Your task to perform on an android device: delete location history Image 0: 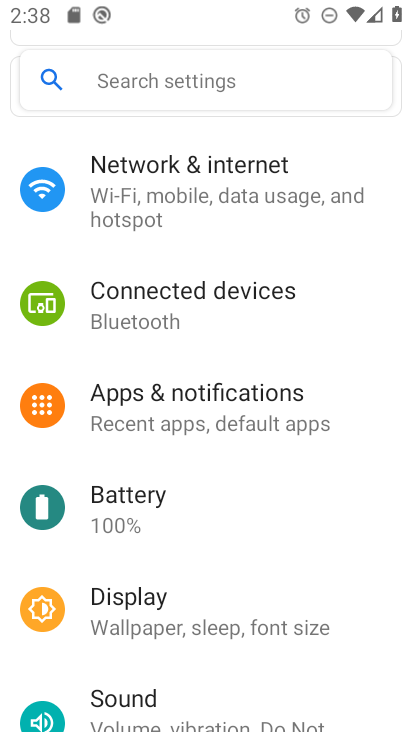
Step 0: drag from (181, 647) to (333, 148)
Your task to perform on an android device: delete location history Image 1: 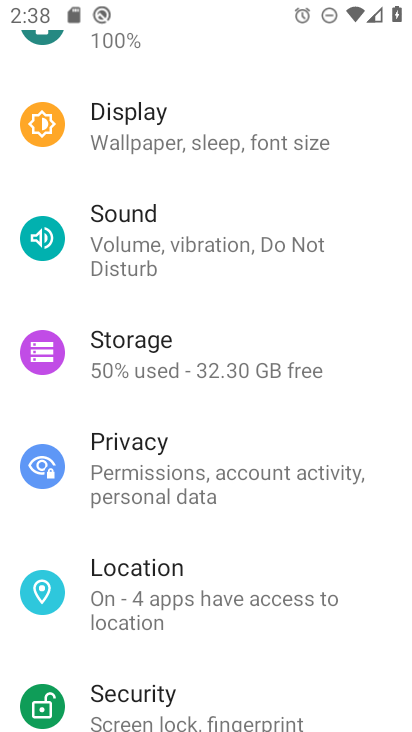
Step 1: drag from (213, 611) to (294, 203)
Your task to perform on an android device: delete location history Image 2: 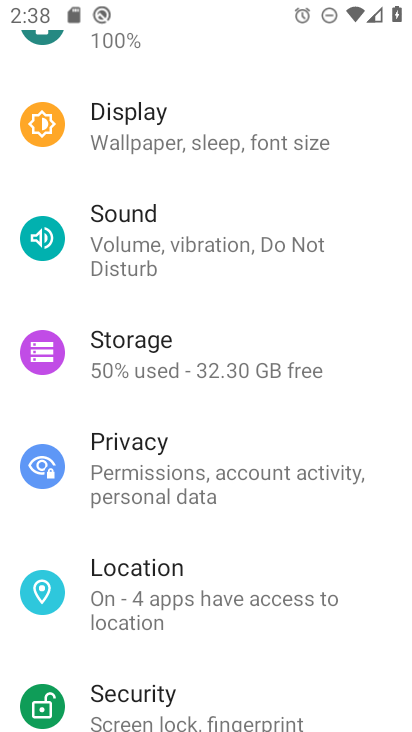
Step 2: click (162, 590)
Your task to perform on an android device: delete location history Image 3: 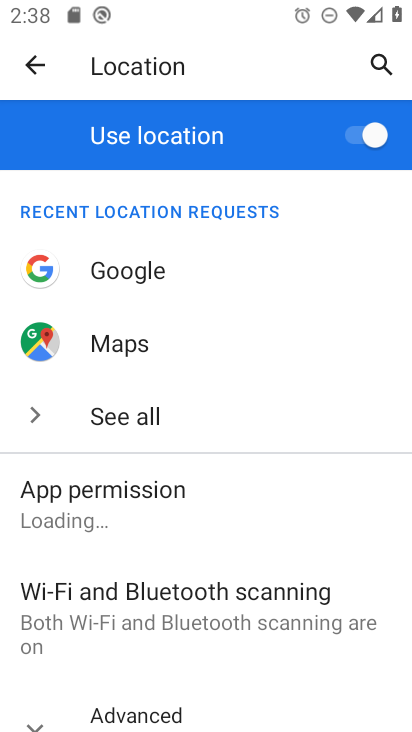
Step 3: click (151, 705)
Your task to perform on an android device: delete location history Image 4: 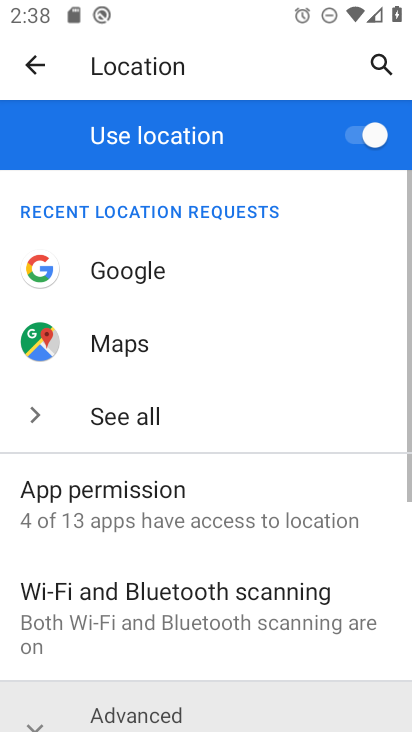
Step 4: drag from (173, 640) to (403, 58)
Your task to perform on an android device: delete location history Image 5: 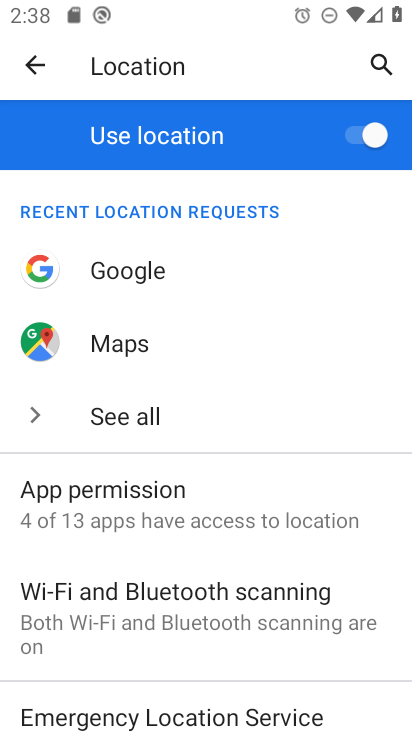
Step 5: drag from (250, 573) to (355, 132)
Your task to perform on an android device: delete location history Image 6: 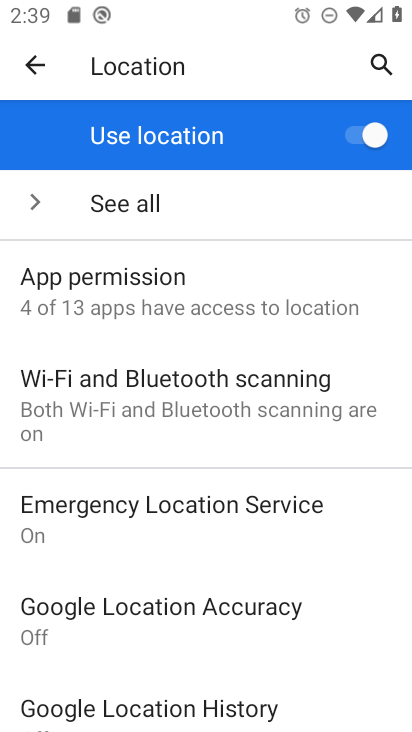
Step 6: click (182, 687)
Your task to perform on an android device: delete location history Image 7: 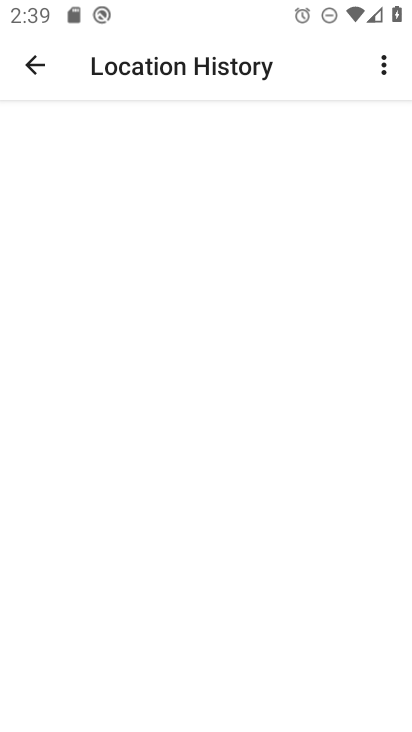
Step 7: drag from (247, 478) to (411, 240)
Your task to perform on an android device: delete location history Image 8: 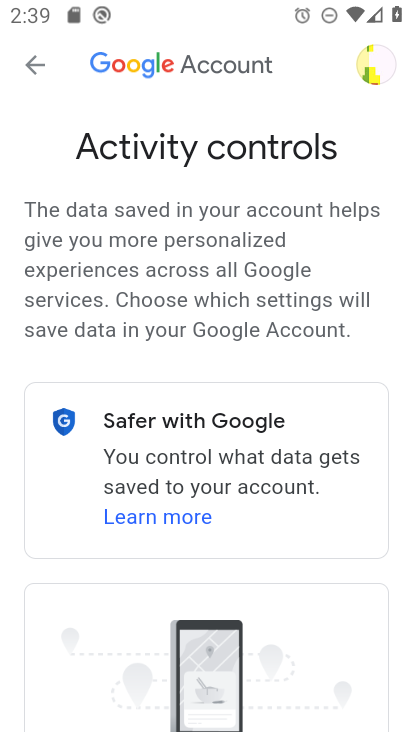
Step 8: drag from (278, 464) to (405, 182)
Your task to perform on an android device: delete location history Image 9: 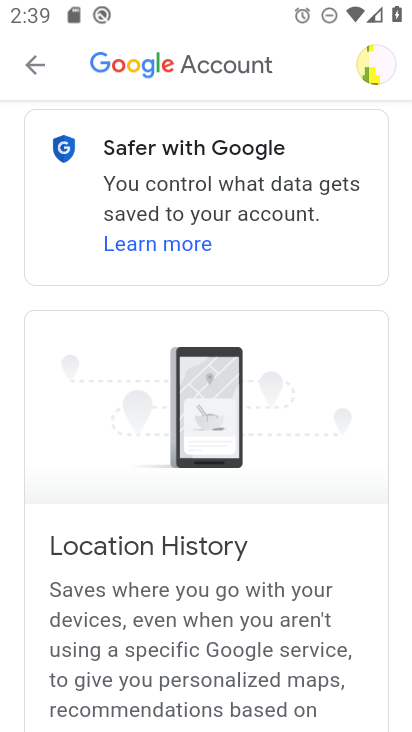
Step 9: drag from (269, 644) to (406, 203)
Your task to perform on an android device: delete location history Image 10: 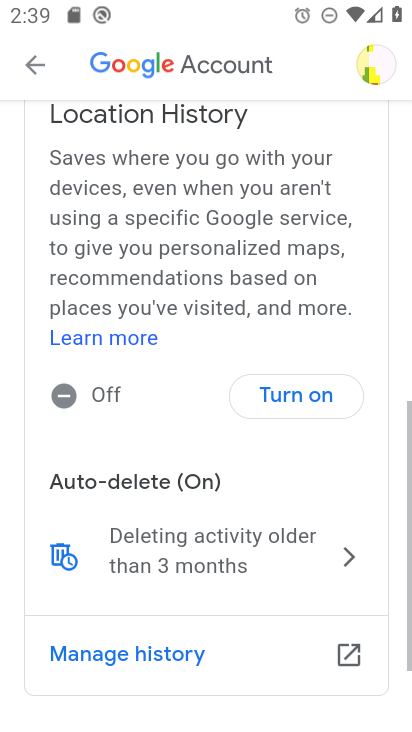
Step 10: drag from (198, 588) to (354, 4)
Your task to perform on an android device: delete location history Image 11: 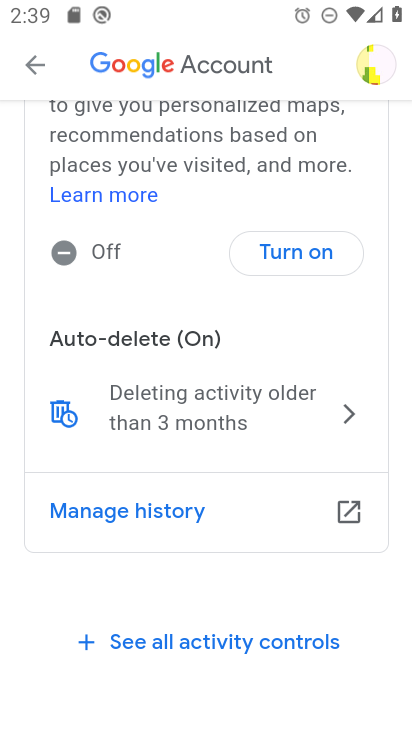
Step 11: click (67, 419)
Your task to perform on an android device: delete location history Image 12: 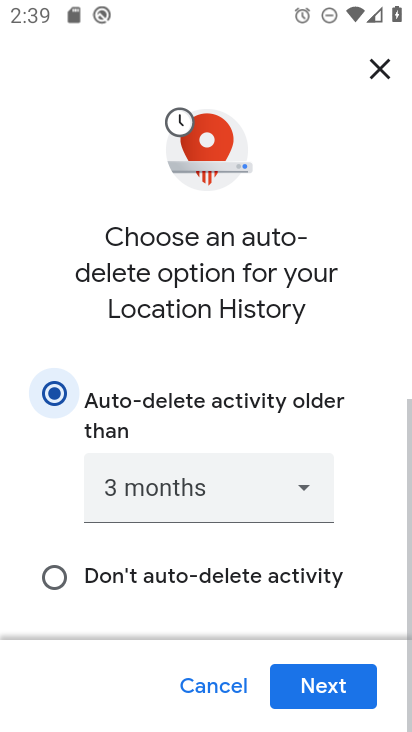
Step 12: drag from (215, 559) to (363, 101)
Your task to perform on an android device: delete location history Image 13: 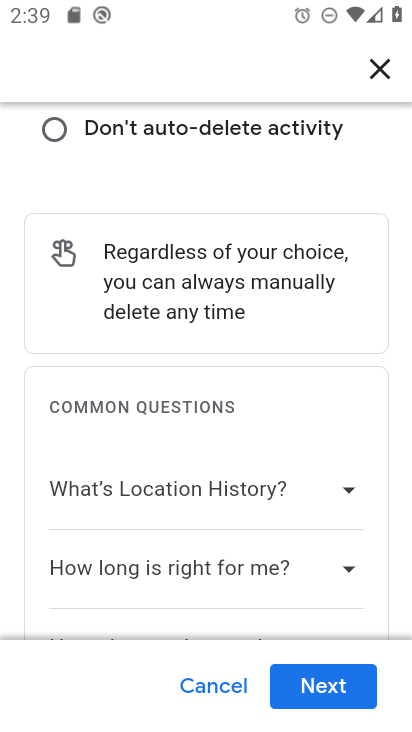
Step 13: click (296, 672)
Your task to perform on an android device: delete location history Image 14: 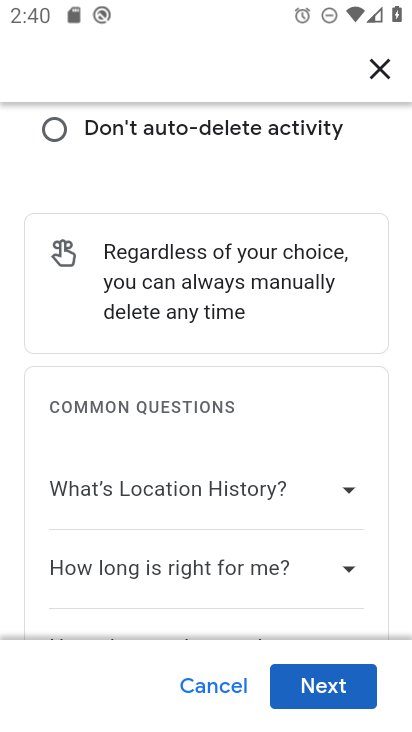
Step 14: click (316, 683)
Your task to perform on an android device: delete location history Image 15: 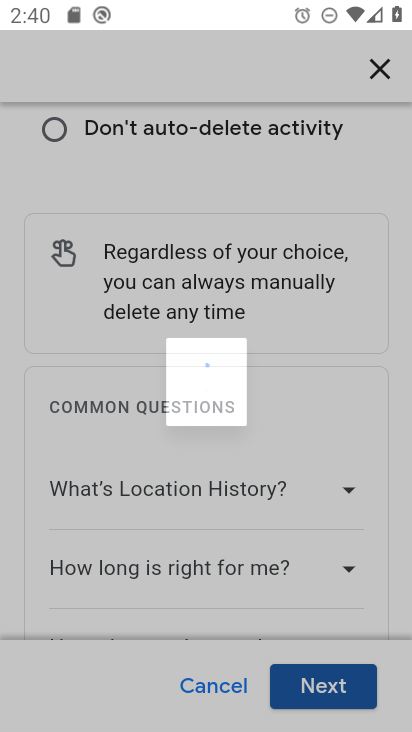
Step 15: click (315, 677)
Your task to perform on an android device: delete location history Image 16: 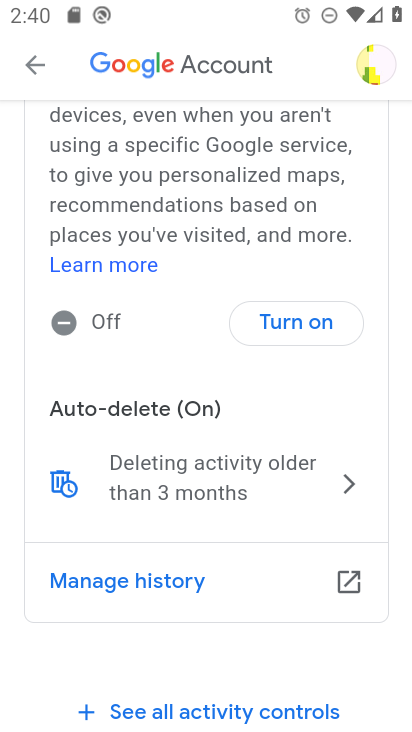
Step 16: task complete